Your task to perform on an android device: turn smart compose on in the gmail app Image 0: 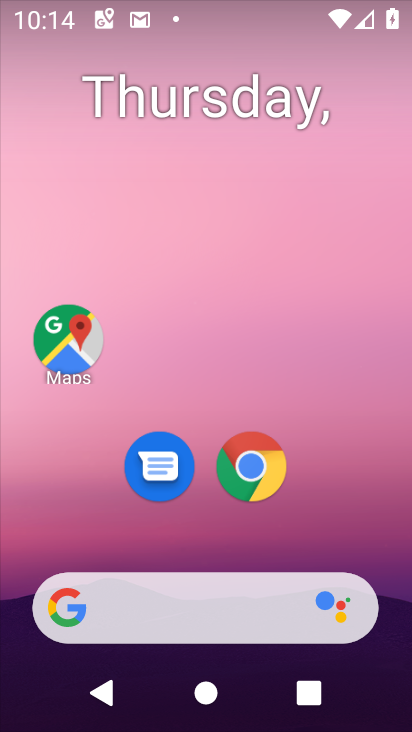
Step 0: drag from (187, 539) to (228, 81)
Your task to perform on an android device: turn smart compose on in the gmail app Image 1: 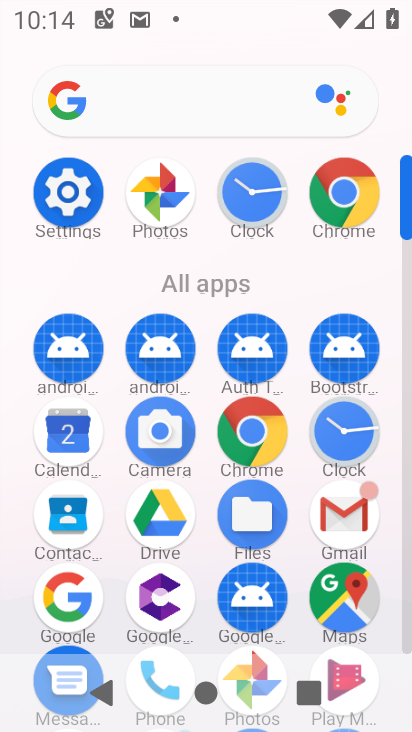
Step 1: click (355, 518)
Your task to perform on an android device: turn smart compose on in the gmail app Image 2: 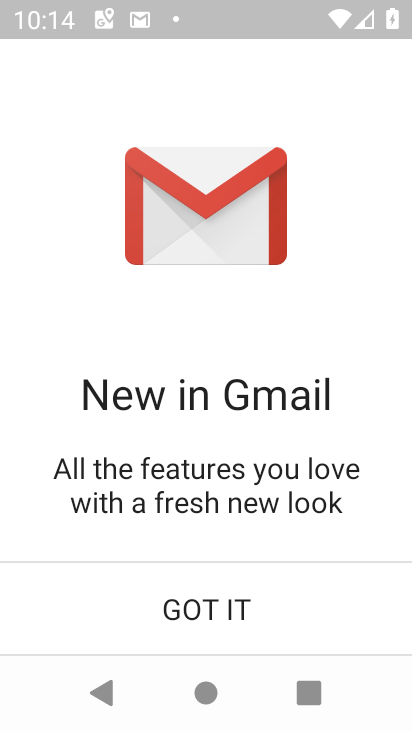
Step 2: click (245, 599)
Your task to perform on an android device: turn smart compose on in the gmail app Image 3: 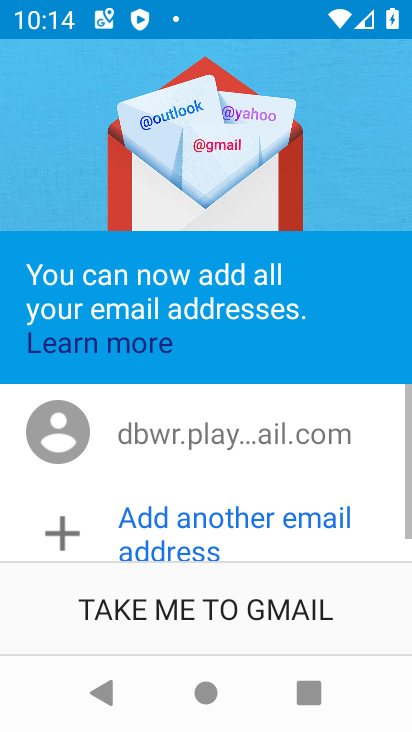
Step 3: click (216, 592)
Your task to perform on an android device: turn smart compose on in the gmail app Image 4: 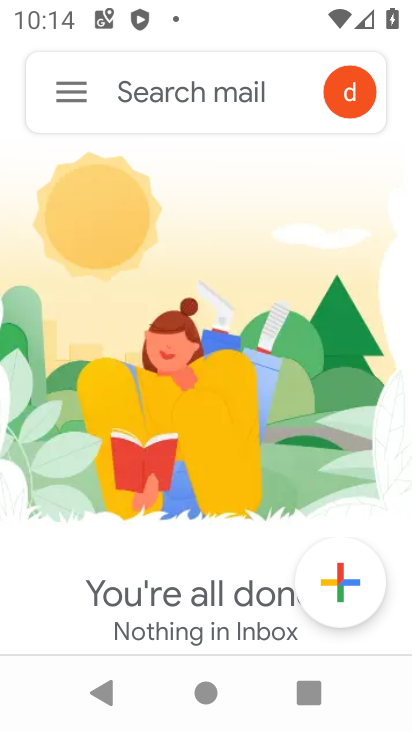
Step 4: click (56, 111)
Your task to perform on an android device: turn smart compose on in the gmail app Image 5: 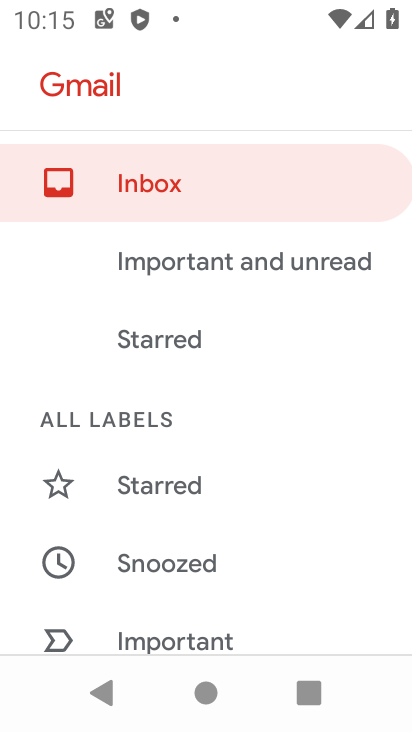
Step 5: drag from (155, 606) to (166, 272)
Your task to perform on an android device: turn smart compose on in the gmail app Image 6: 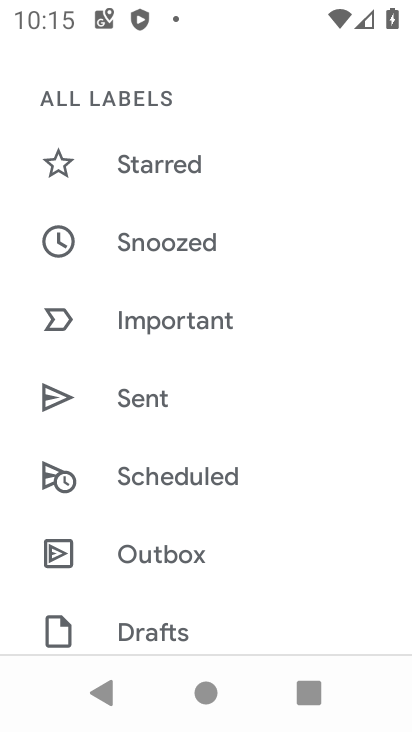
Step 6: drag from (192, 579) to (168, 296)
Your task to perform on an android device: turn smart compose on in the gmail app Image 7: 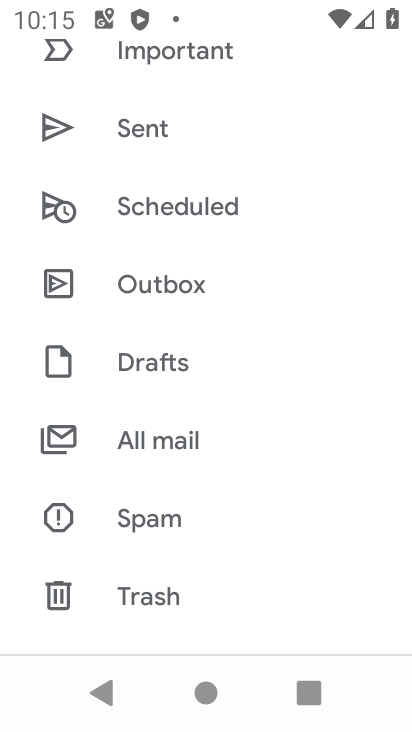
Step 7: drag from (203, 557) to (205, 317)
Your task to perform on an android device: turn smart compose on in the gmail app Image 8: 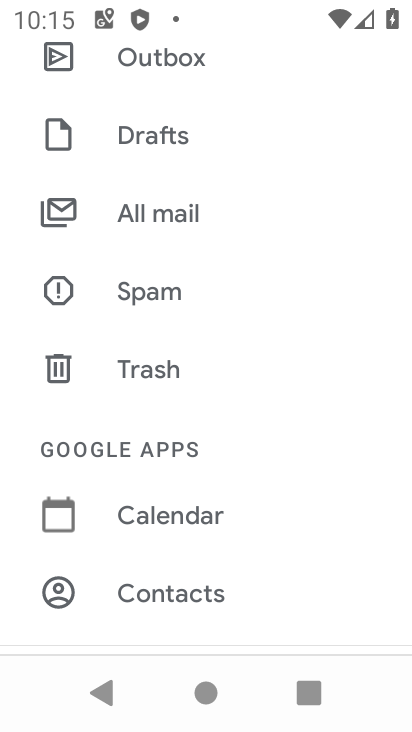
Step 8: drag from (190, 516) to (204, 179)
Your task to perform on an android device: turn smart compose on in the gmail app Image 9: 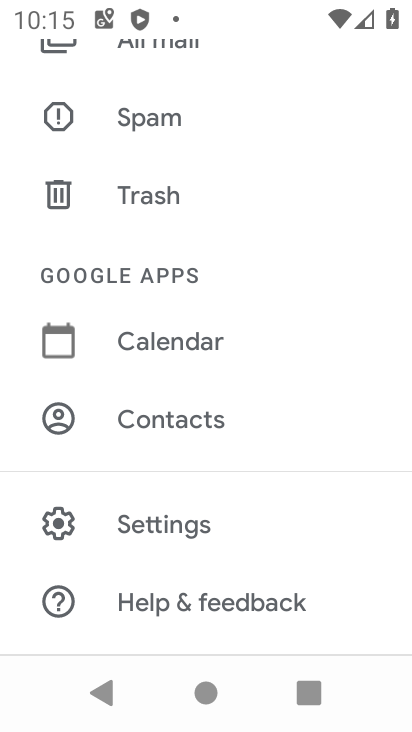
Step 9: click (169, 515)
Your task to perform on an android device: turn smart compose on in the gmail app Image 10: 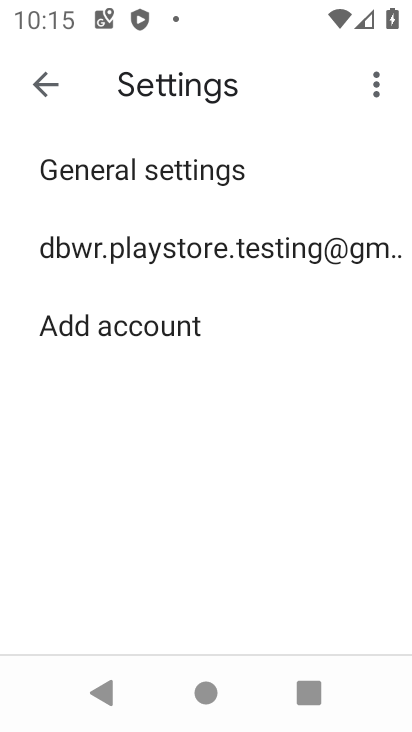
Step 10: click (146, 247)
Your task to perform on an android device: turn smart compose on in the gmail app Image 11: 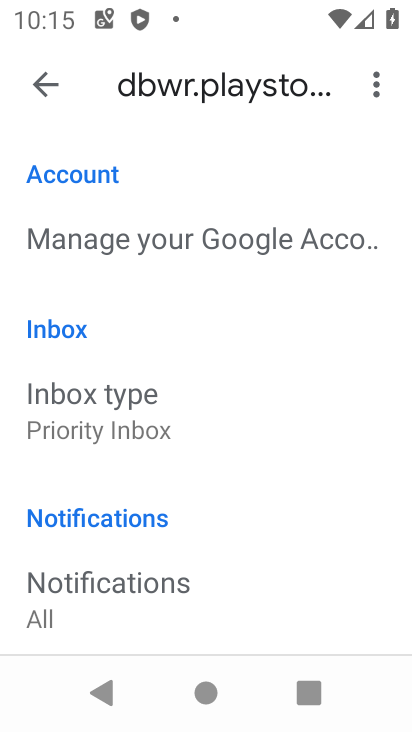
Step 11: task complete